Your task to perform on an android device: delete the emails in spam in the gmail app Image 0: 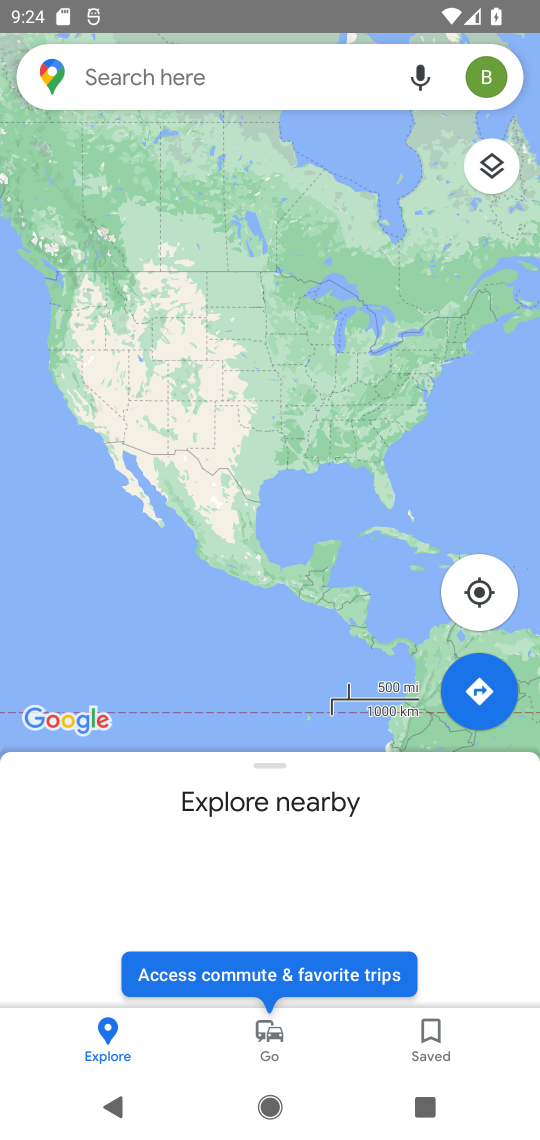
Step 0: press home button
Your task to perform on an android device: delete the emails in spam in the gmail app Image 1: 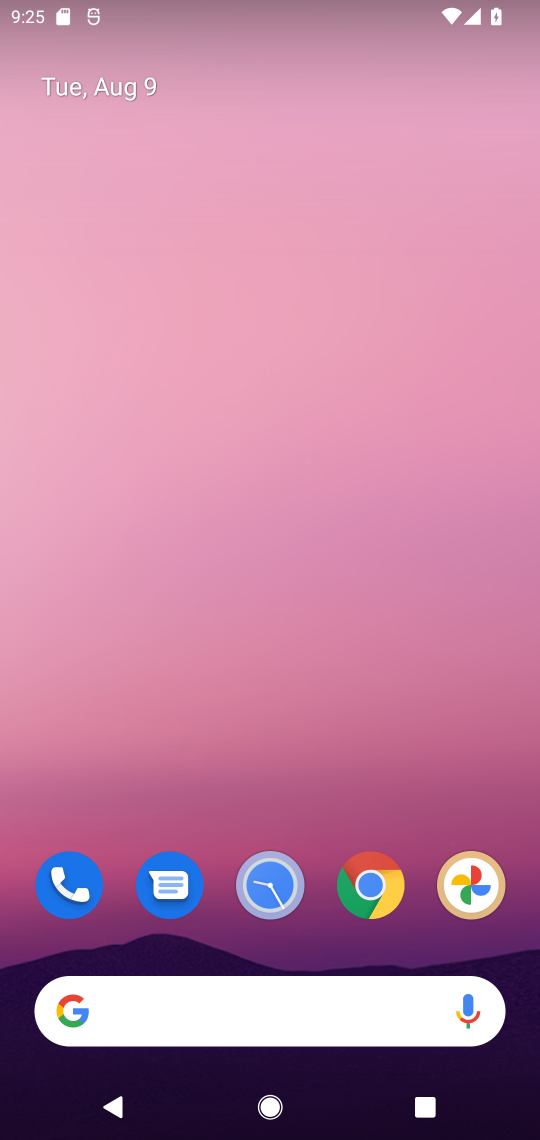
Step 1: drag from (320, 986) to (258, 230)
Your task to perform on an android device: delete the emails in spam in the gmail app Image 2: 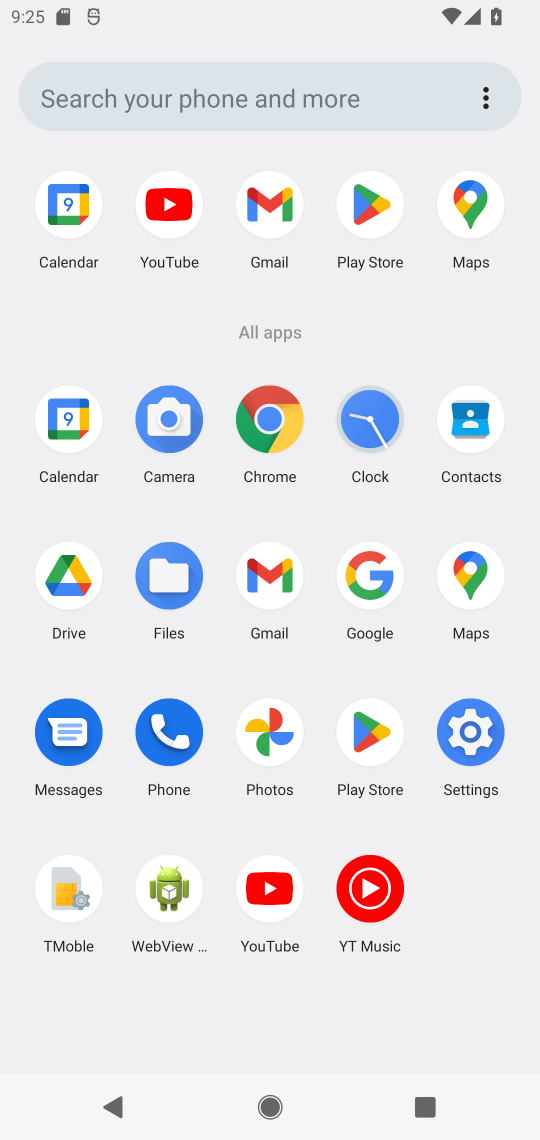
Step 2: click (270, 557)
Your task to perform on an android device: delete the emails in spam in the gmail app Image 3: 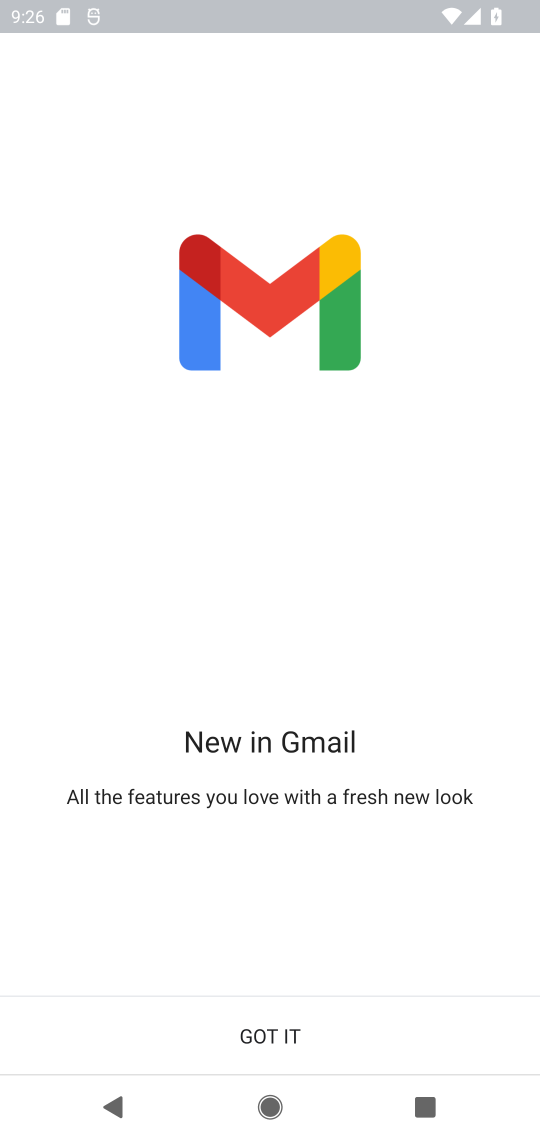
Step 3: click (330, 1029)
Your task to perform on an android device: delete the emails in spam in the gmail app Image 4: 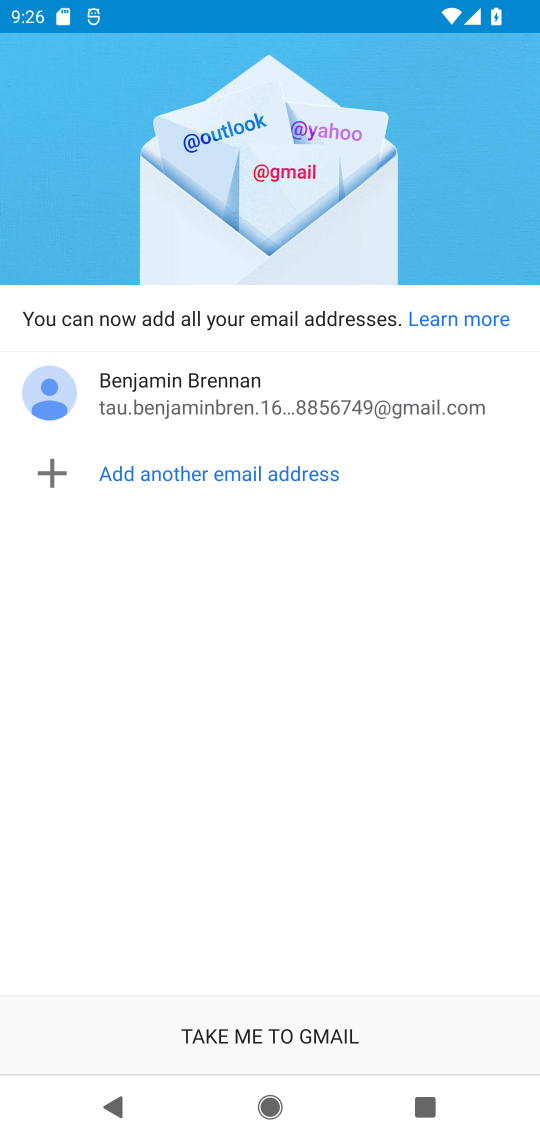
Step 4: click (273, 1022)
Your task to perform on an android device: delete the emails in spam in the gmail app Image 5: 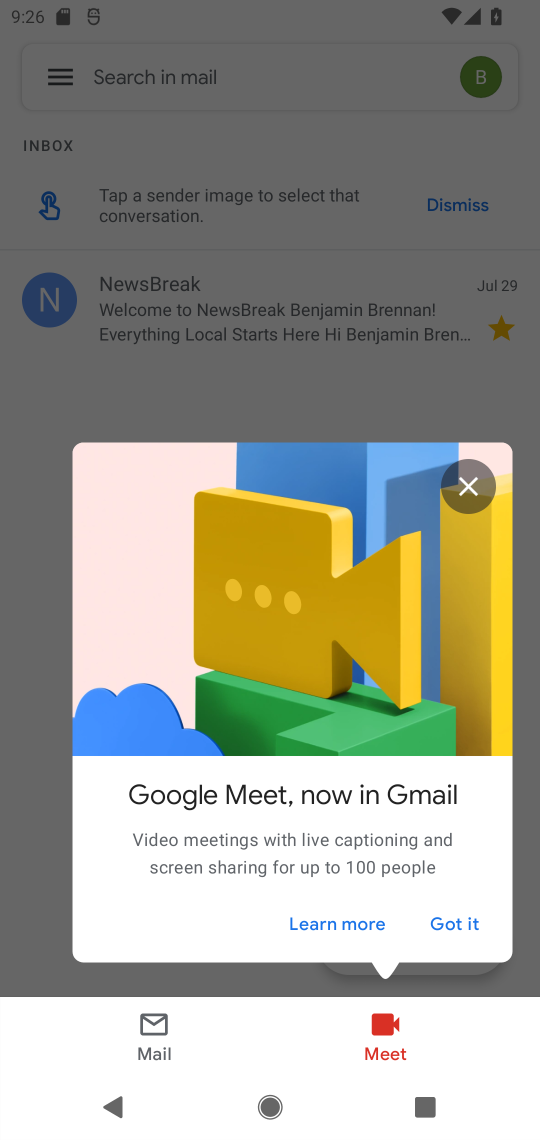
Step 5: click (457, 922)
Your task to perform on an android device: delete the emails in spam in the gmail app Image 6: 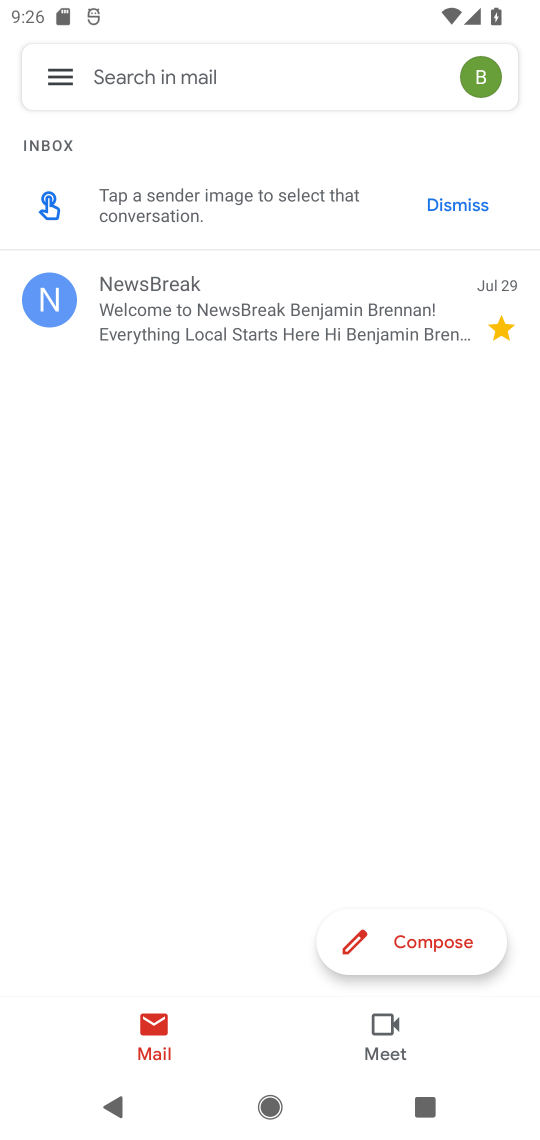
Step 6: click (58, 80)
Your task to perform on an android device: delete the emails in spam in the gmail app Image 7: 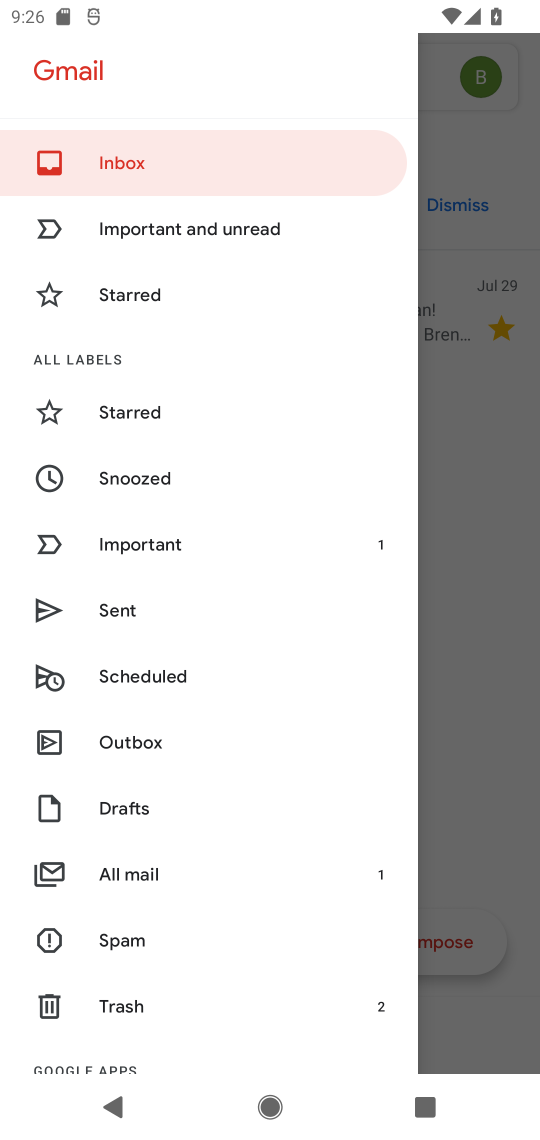
Step 7: click (160, 944)
Your task to perform on an android device: delete the emails in spam in the gmail app Image 8: 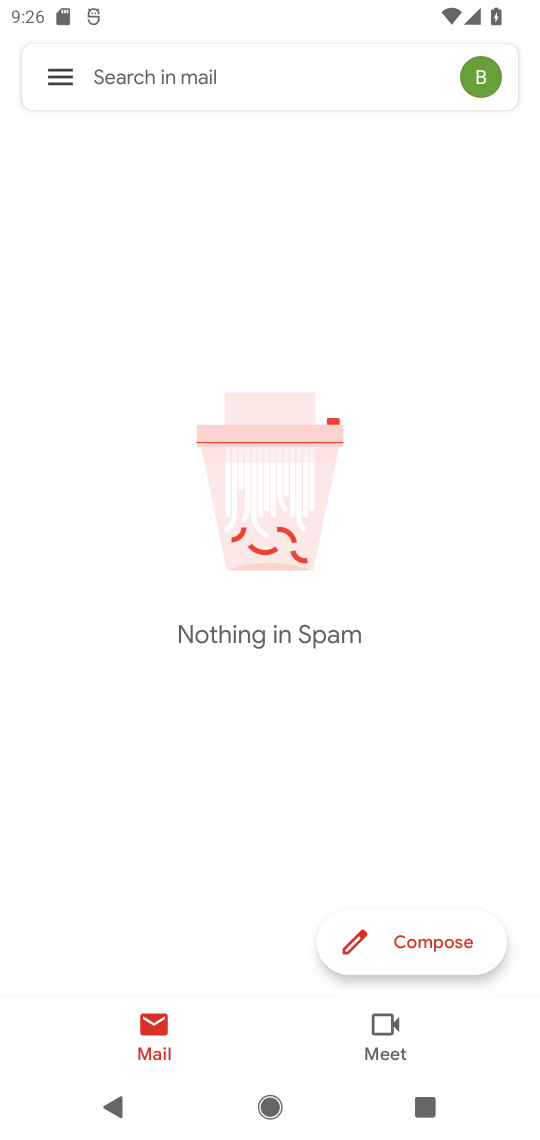
Step 8: task complete